Your task to perform on an android device: What's the weather going to be this weekend? Image 0: 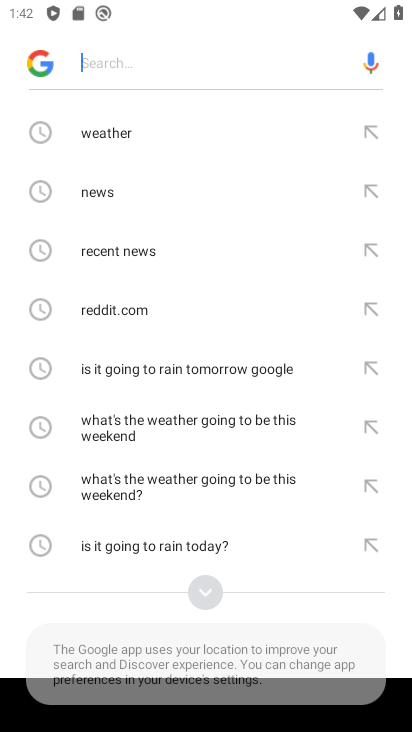
Step 0: press home button
Your task to perform on an android device: What's the weather going to be this weekend? Image 1: 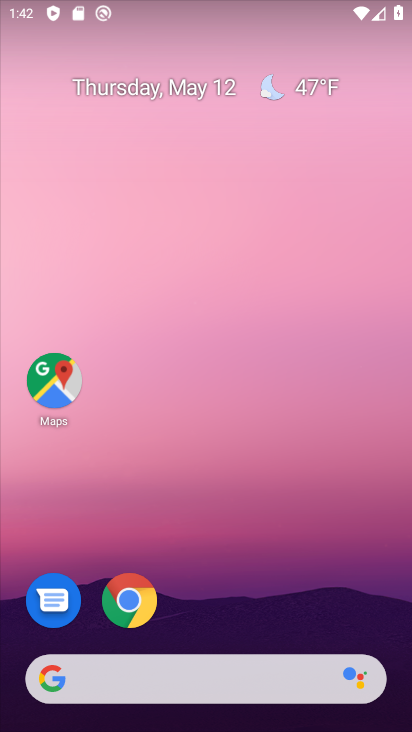
Step 1: click (244, 675)
Your task to perform on an android device: What's the weather going to be this weekend? Image 2: 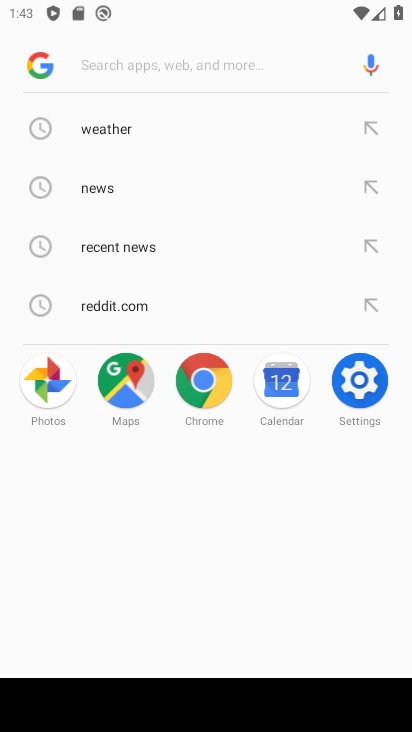
Step 2: type "What's the weather going to be this weekend?"
Your task to perform on an android device: What's the weather going to be this weekend? Image 3: 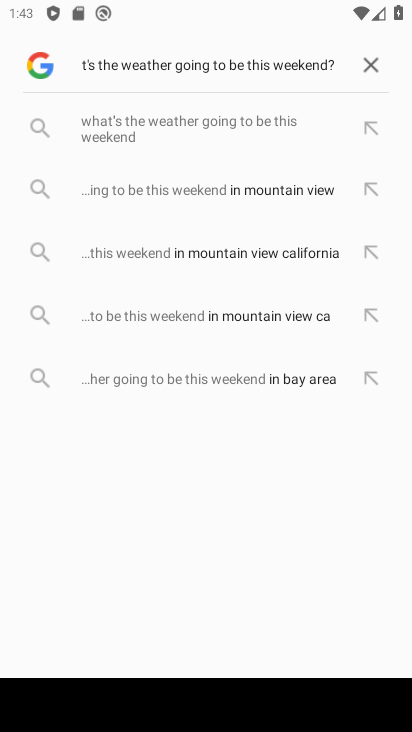
Step 3: click (136, 69)
Your task to perform on an android device: What's the weather going to be this weekend? Image 4: 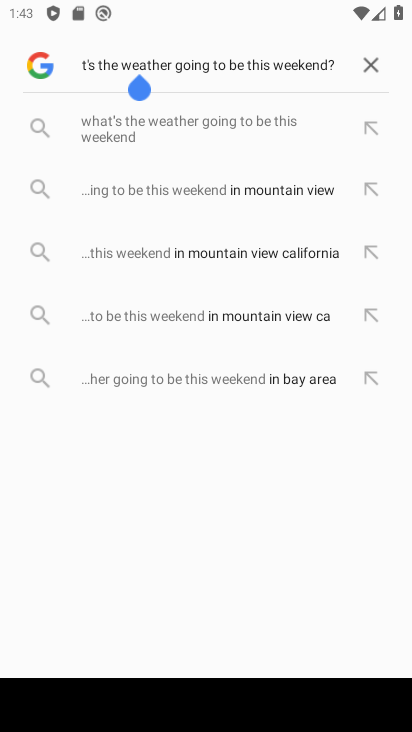
Step 4: click (125, 120)
Your task to perform on an android device: What's the weather going to be this weekend? Image 5: 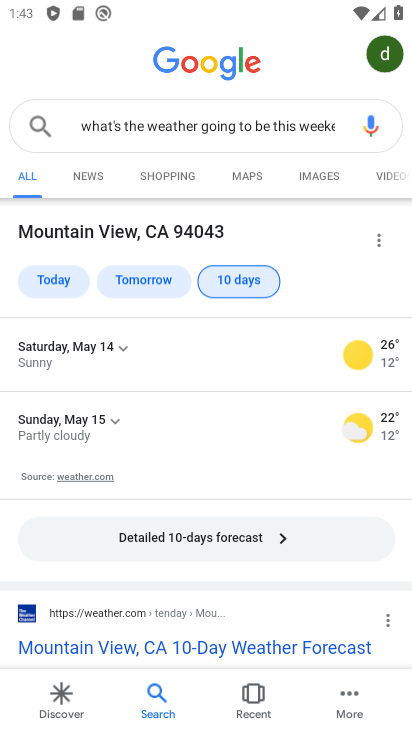
Step 5: task complete